Your task to perform on an android device: Open eBay Image 0: 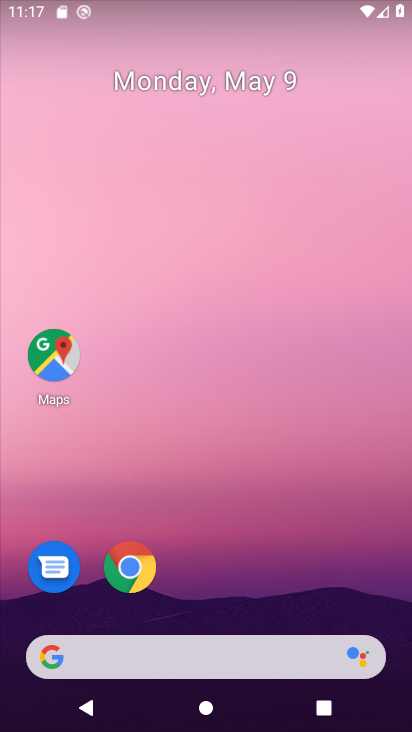
Step 0: click (125, 568)
Your task to perform on an android device: Open eBay Image 1: 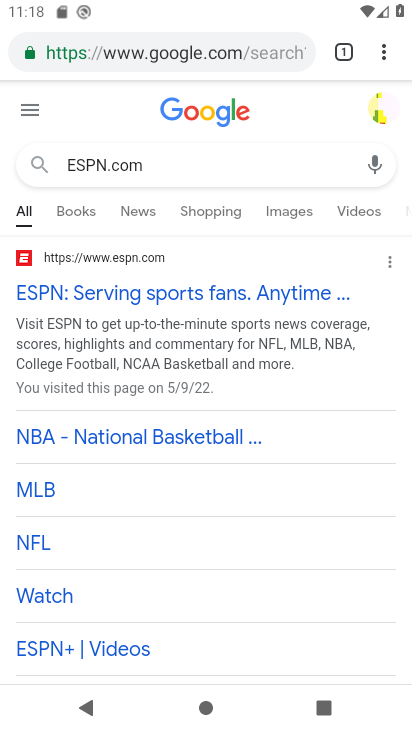
Step 1: click (254, 47)
Your task to perform on an android device: Open eBay Image 2: 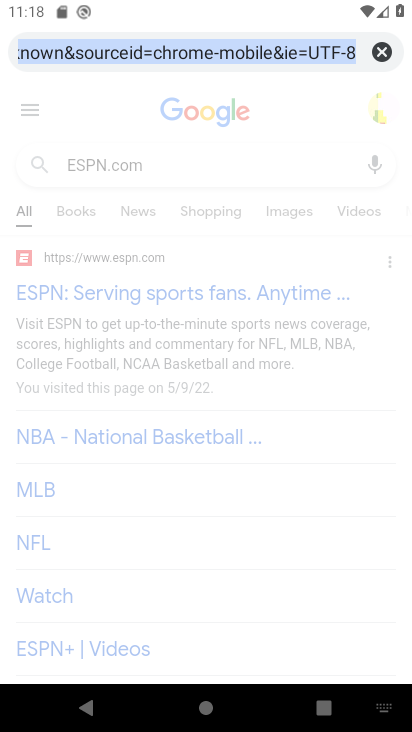
Step 2: type "eBay"
Your task to perform on an android device: Open eBay Image 3: 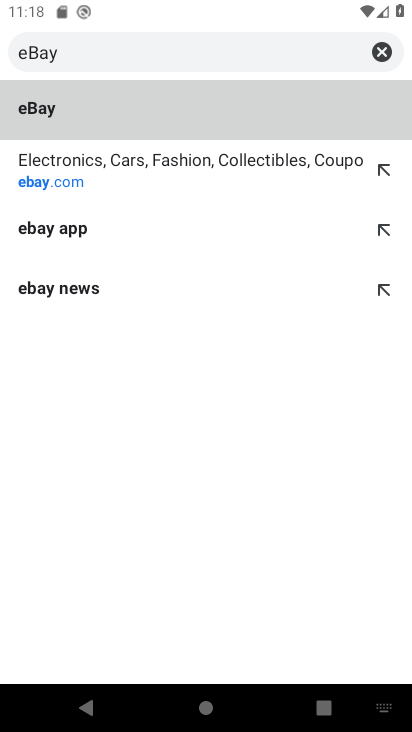
Step 3: click (66, 100)
Your task to perform on an android device: Open eBay Image 4: 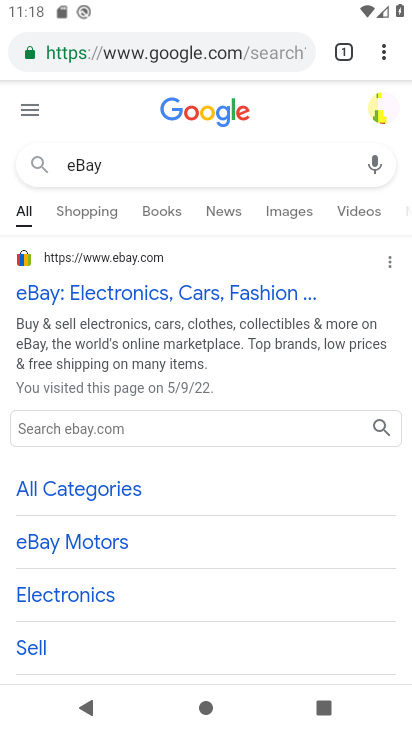
Step 4: task complete